Your task to perform on an android device: turn on translation in the chrome app Image 0: 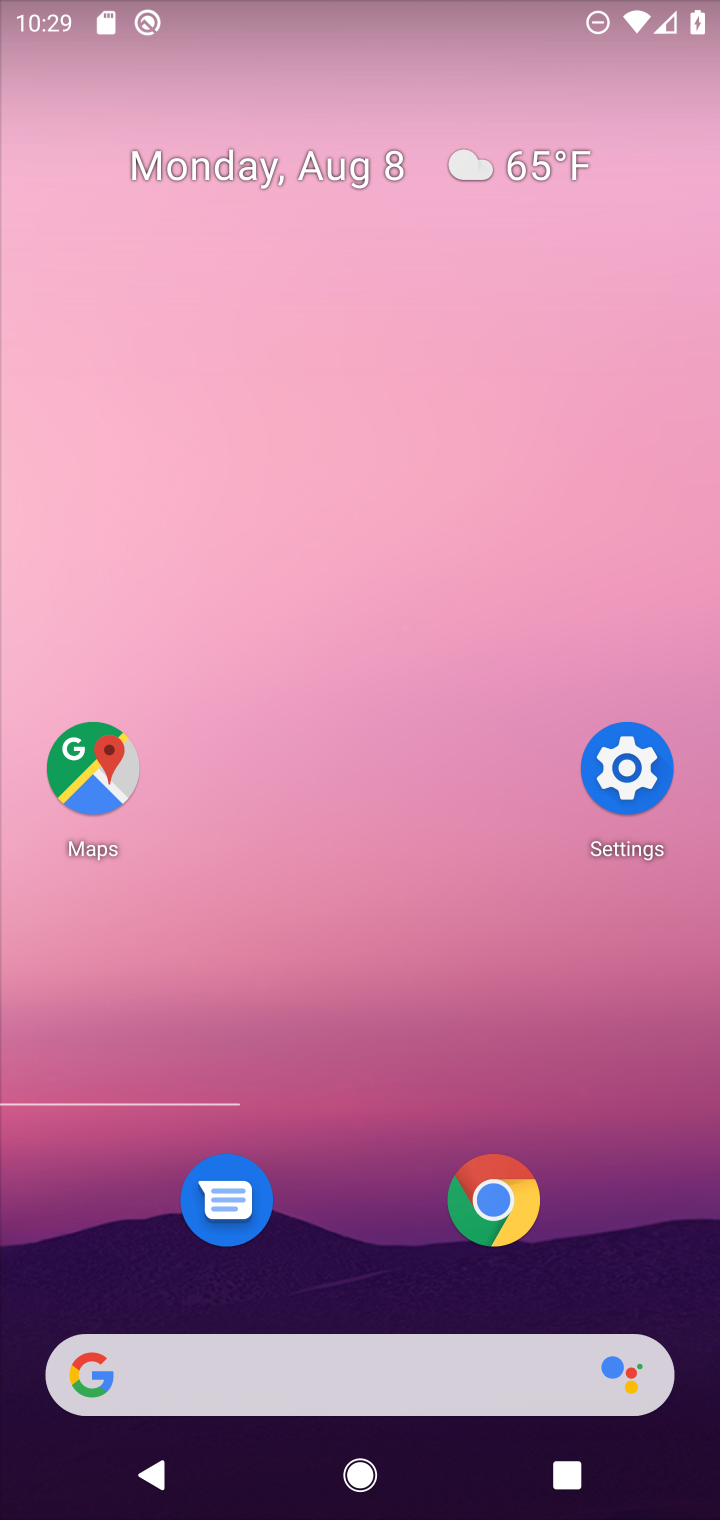
Step 0: click (493, 1205)
Your task to perform on an android device: turn on translation in the chrome app Image 1: 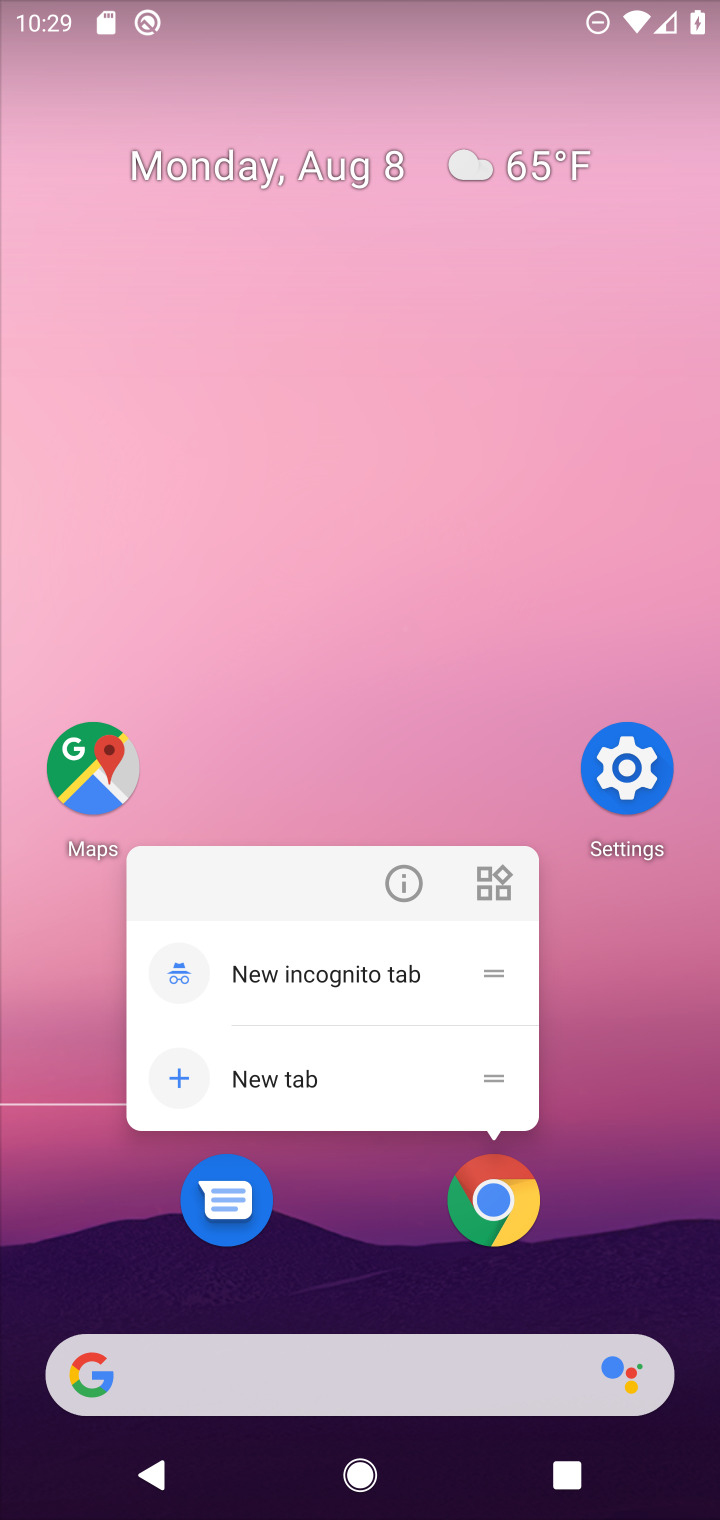
Step 1: click (489, 1205)
Your task to perform on an android device: turn on translation in the chrome app Image 2: 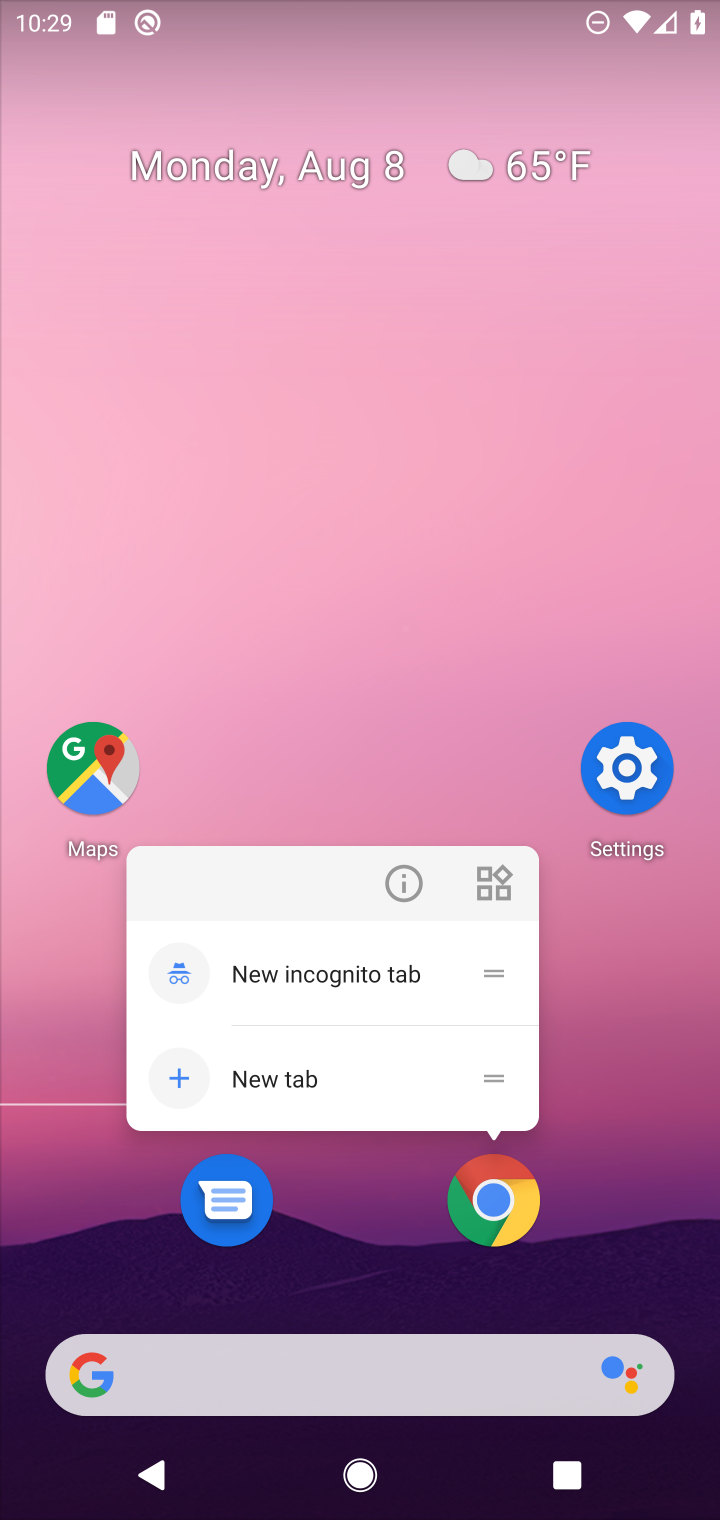
Step 2: click (489, 1211)
Your task to perform on an android device: turn on translation in the chrome app Image 3: 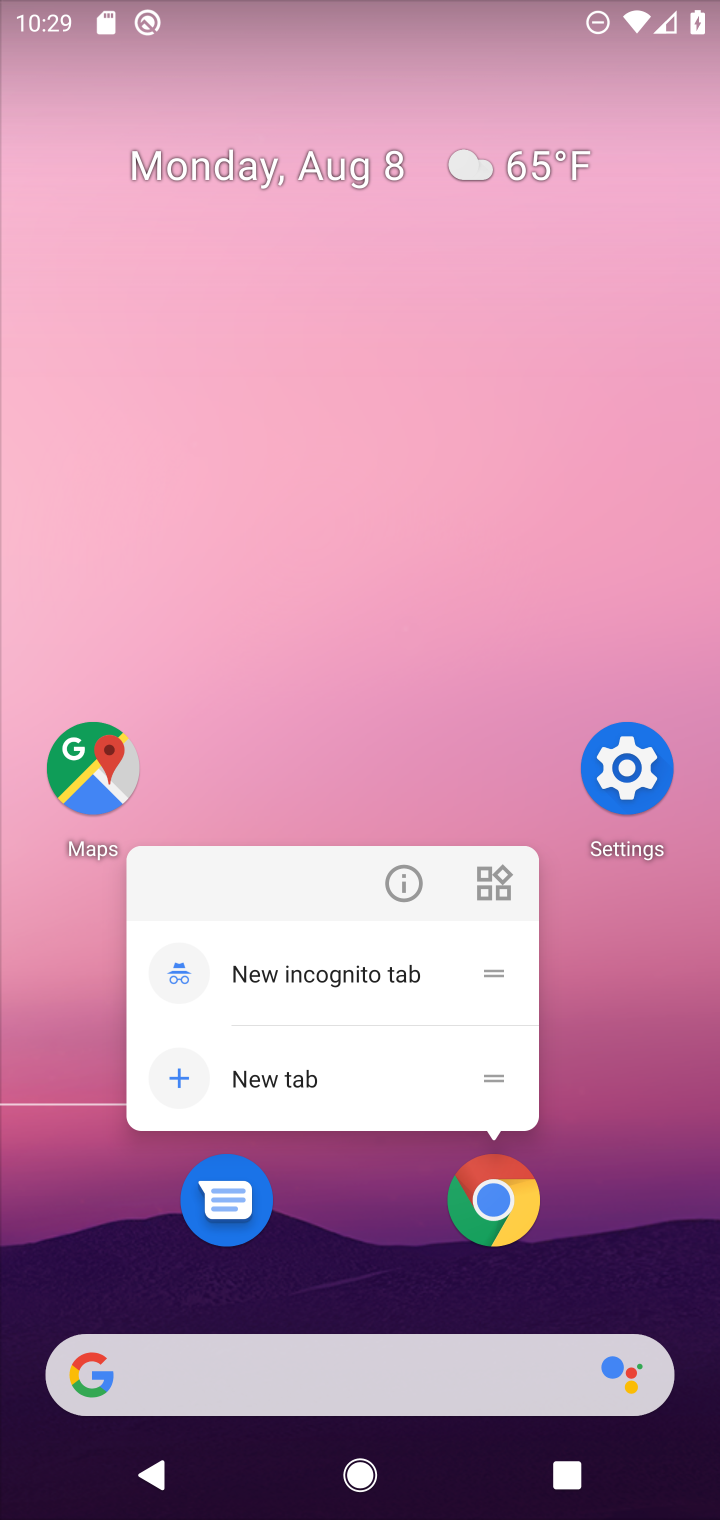
Step 3: click (489, 1211)
Your task to perform on an android device: turn on translation in the chrome app Image 4: 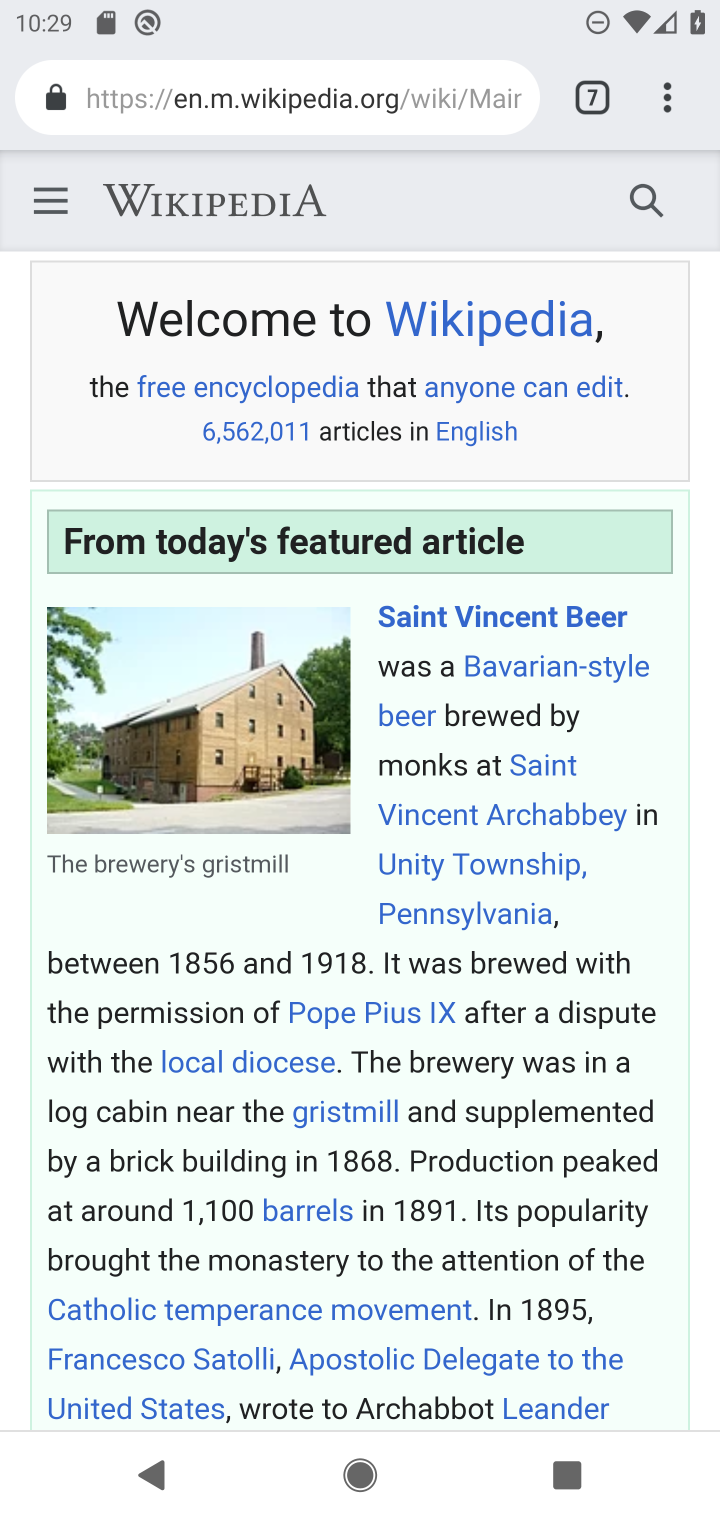
Step 4: drag from (671, 81) to (357, 1295)
Your task to perform on an android device: turn on translation in the chrome app Image 5: 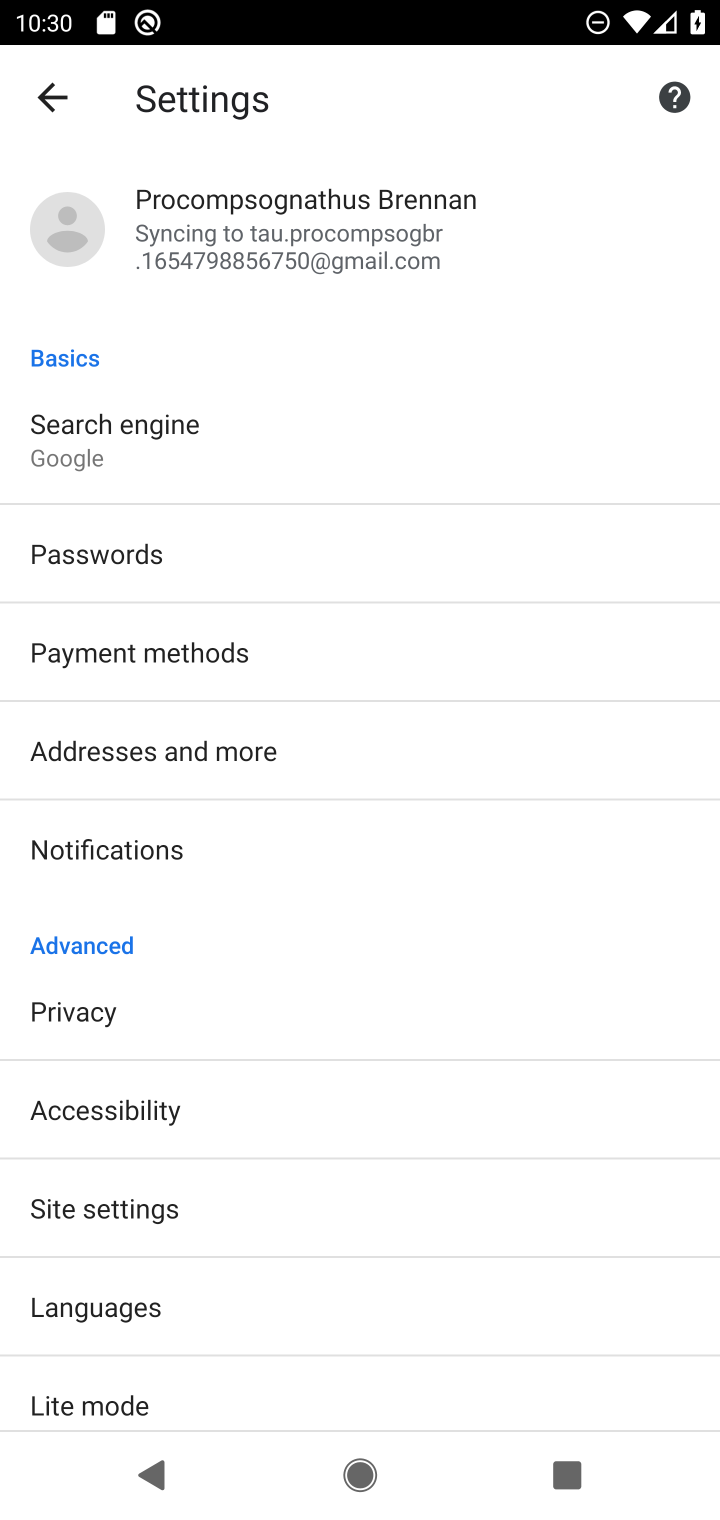
Step 5: click (174, 1288)
Your task to perform on an android device: turn on translation in the chrome app Image 6: 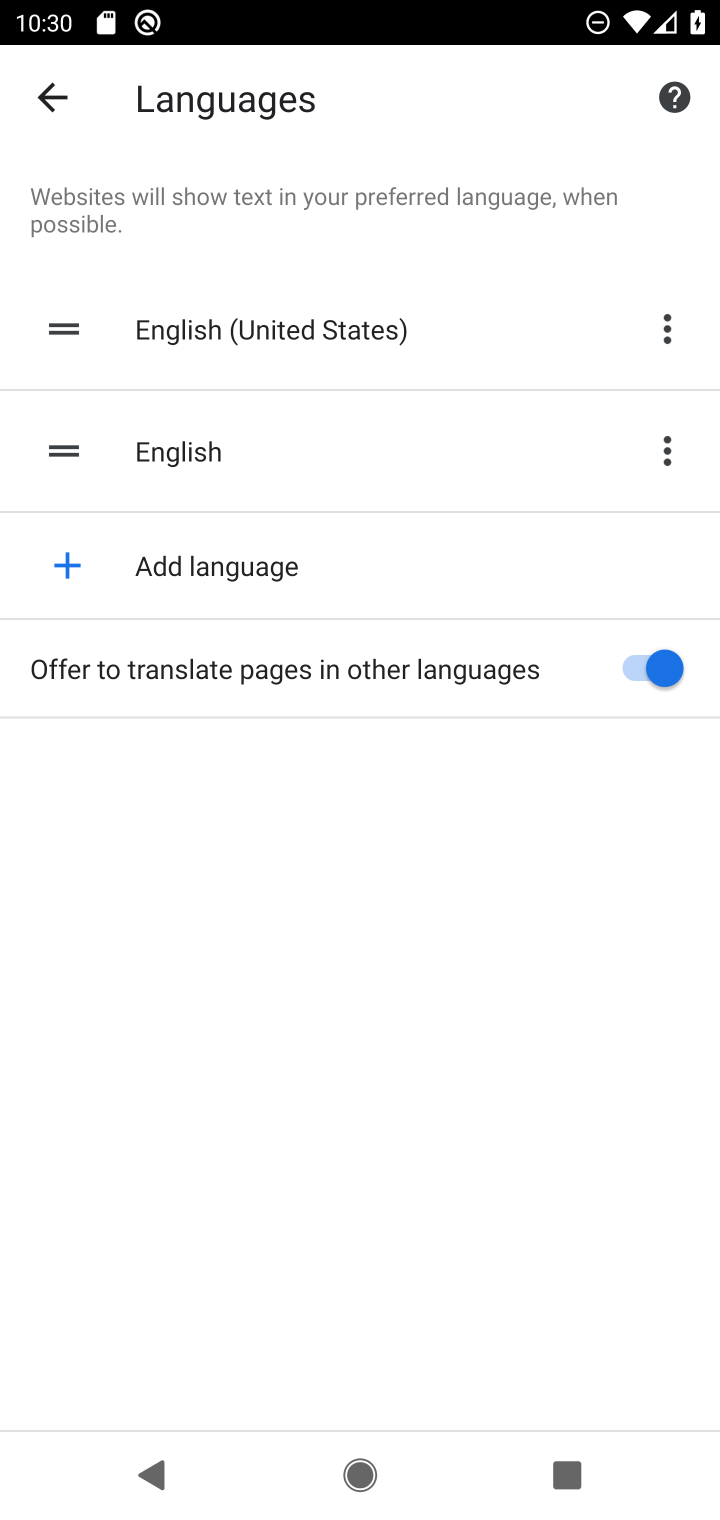
Step 6: task complete